Your task to perform on an android device: Open Amazon Image 0: 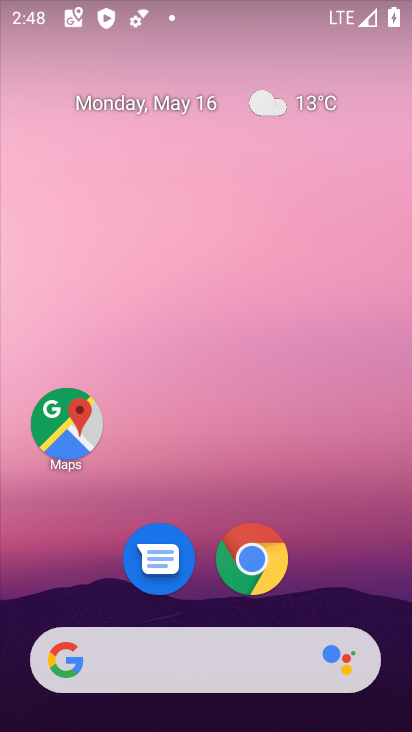
Step 0: click (258, 553)
Your task to perform on an android device: Open Amazon Image 1: 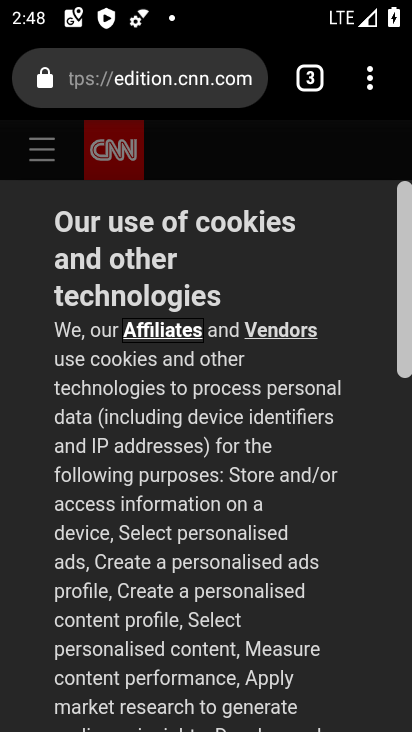
Step 1: click (311, 73)
Your task to perform on an android device: Open Amazon Image 2: 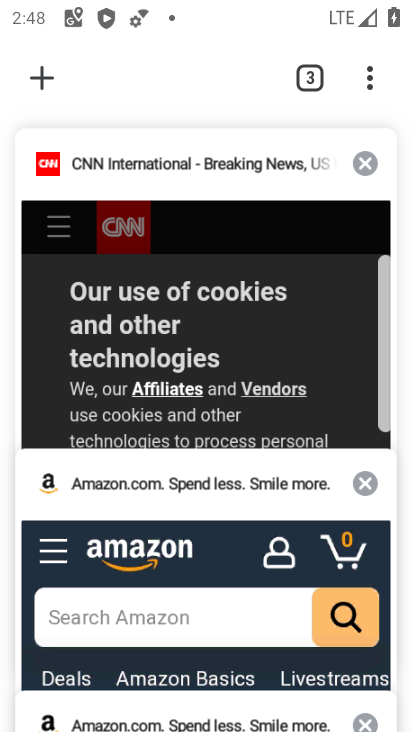
Step 2: click (121, 518)
Your task to perform on an android device: Open Amazon Image 3: 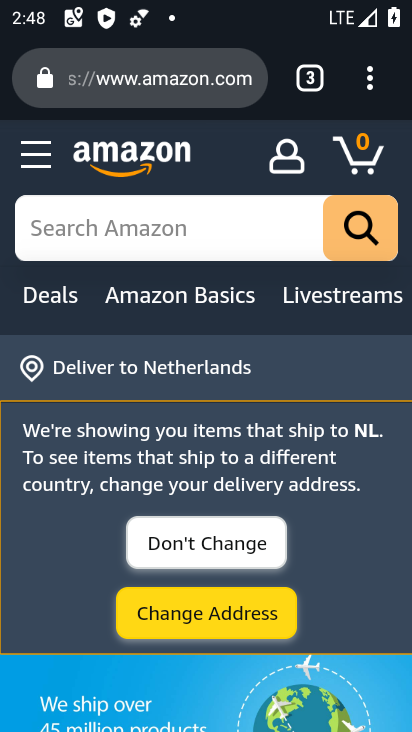
Step 3: task complete